Your task to perform on an android device: find which apps use the phone's location Image 0: 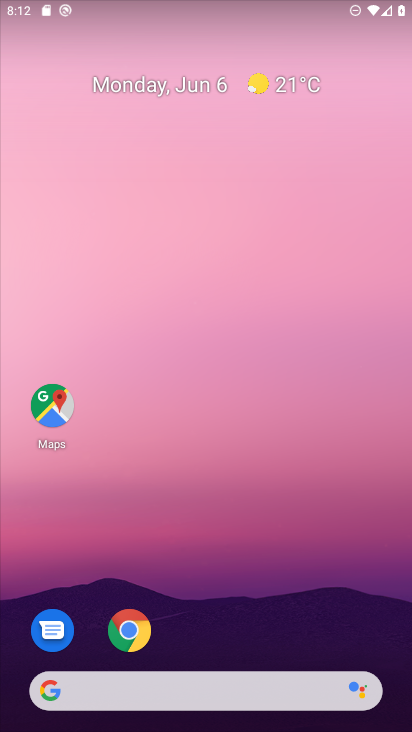
Step 0: drag from (199, 661) to (279, 220)
Your task to perform on an android device: find which apps use the phone's location Image 1: 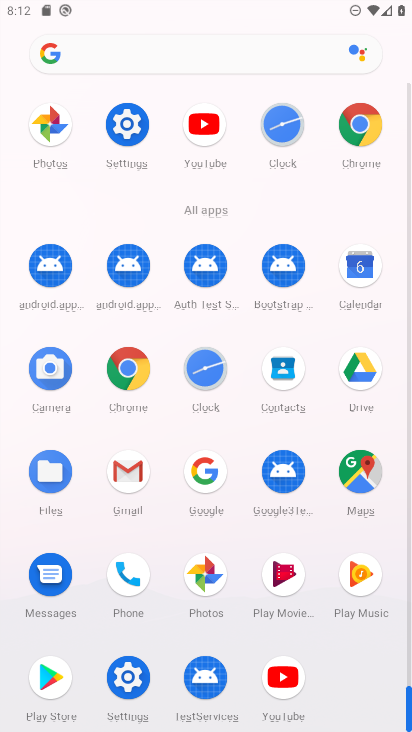
Step 1: click (112, 669)
Your task to perform on an android device: find which apps use the phone's location Image 2: 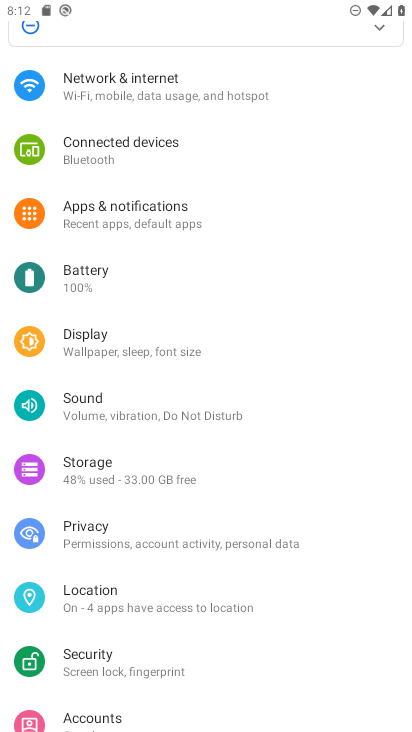
Step 2: click (142, 599)
Your task to perform on an android device: find which apps use the phone's location Image 3: 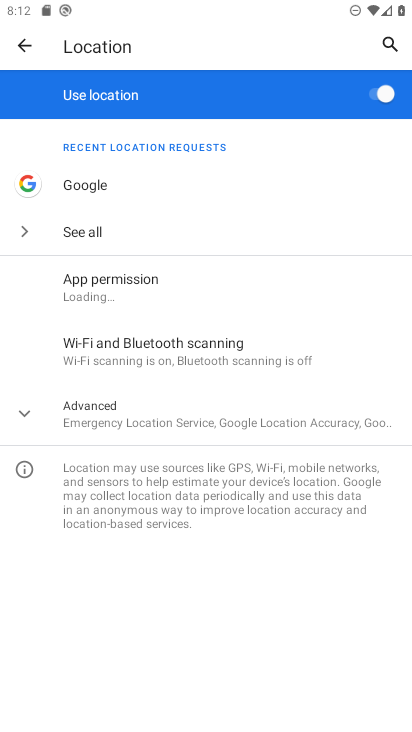
Step 3: click (188, 286)
Your task to perform on an android device: find which apps use the phone's location Image 4: 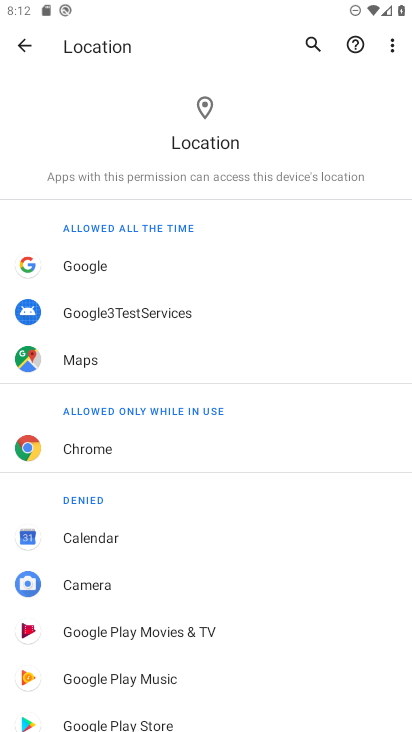
Step 4: task complete